Your task to perform on an android device: Go to Reddit.com Image 0: 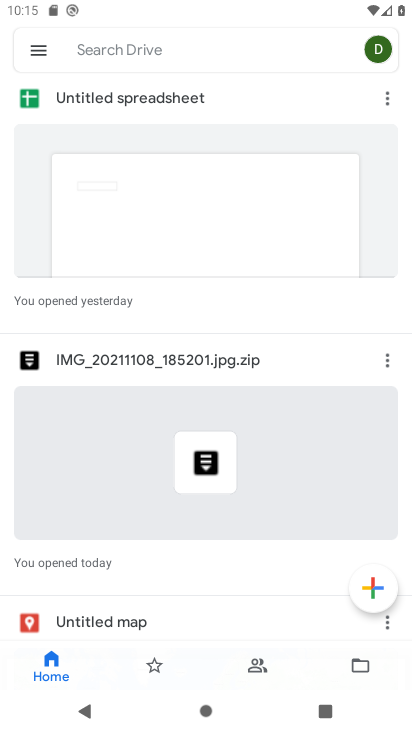
Step 0: press home button
Your task to perform on an android device: Go to Reddit.com Image 1: 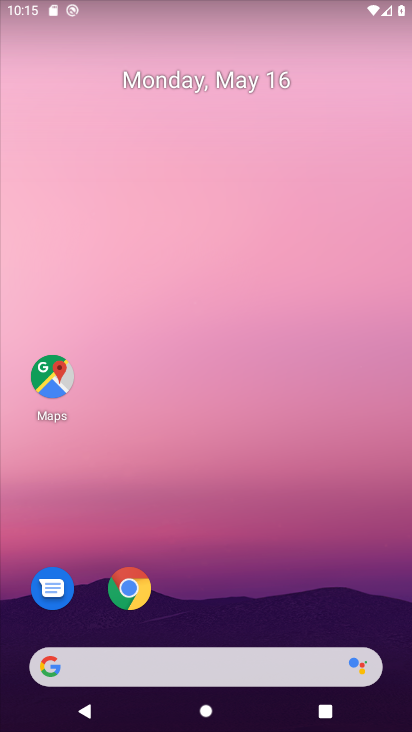
Step 1: click (128, 580)
Your task to perform on an android device: Go to Reddit.com Image 2: 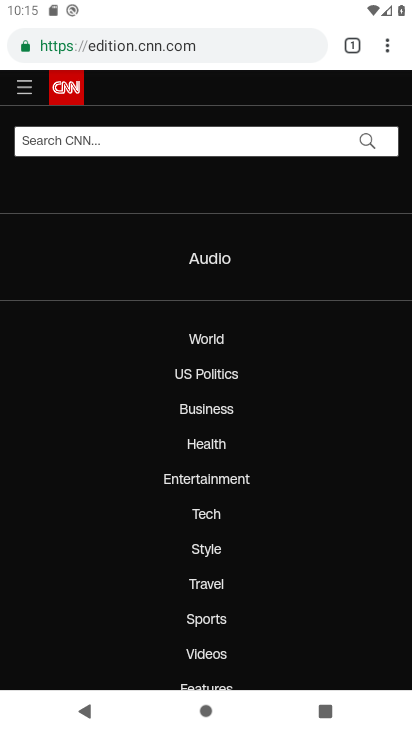
Step 2: click (383, 43)
Your task to perform on an android device: Go to Reddit.com Image 3: 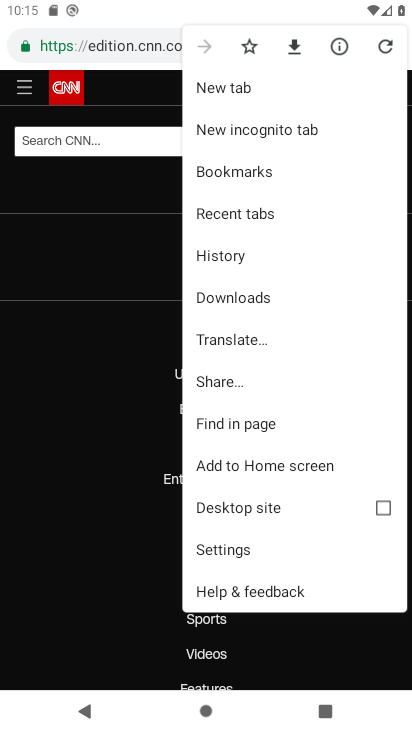
Step 3: click (62, 425)
Your task to perform on an android device: Go to Reddit.com Image 4: 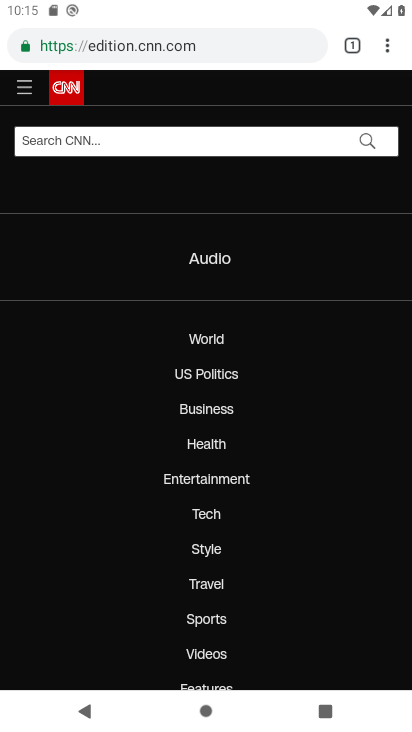
Step 4: click (357, 39)
Your task to perform on an android device: Go to Reddit.com Image 5: 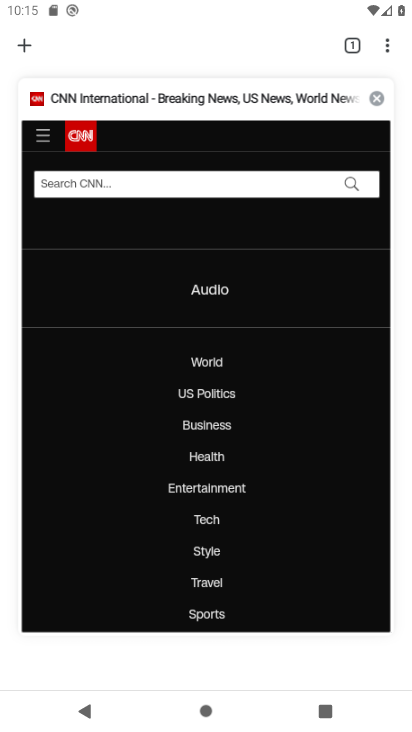
Step 5: click (374, 91)
Your task to perform on an android device: Go to Reddit.com Image 6: 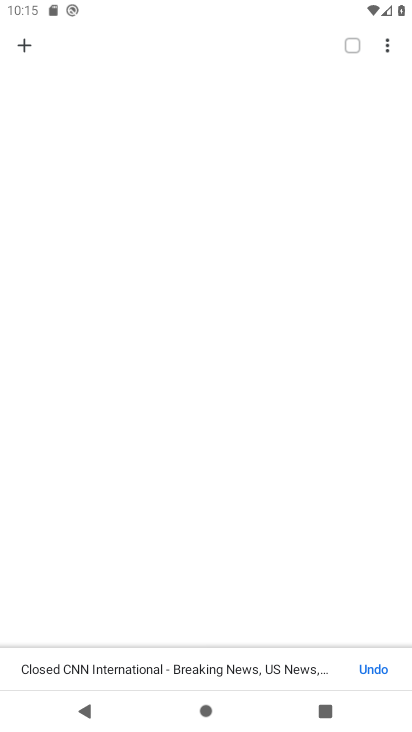
Step 6: click (28, 51)
Your task to perform on an android device: Go to Reddit.com Image 7: 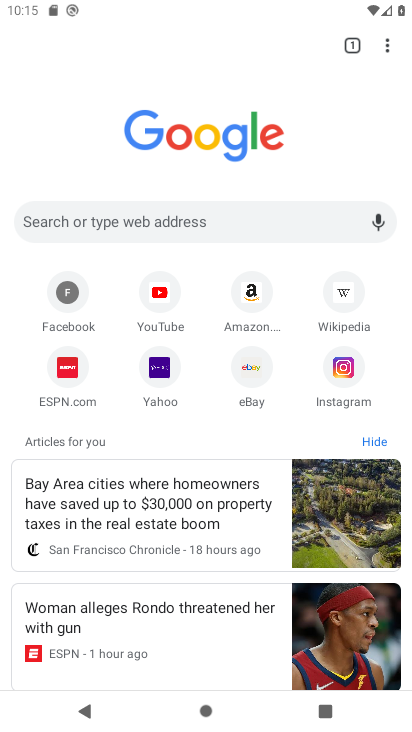
Step 7: click (173, 209)
Your task to perform on an android device: Go to Reddit.com Image 8: 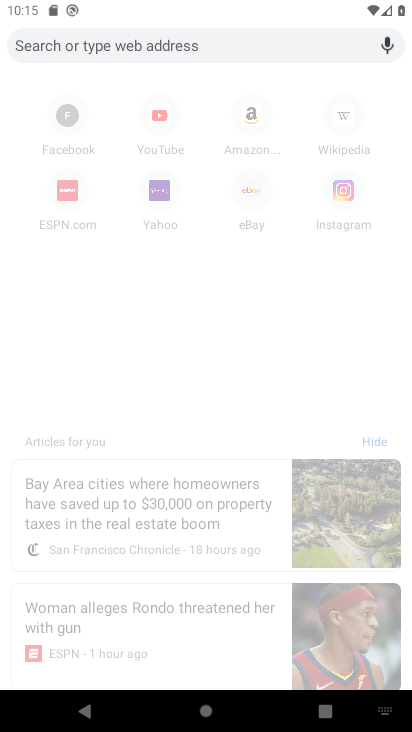
Step 8: type "reddit"
Your task to perform on an android device: Go to Reddit.com Image 9: 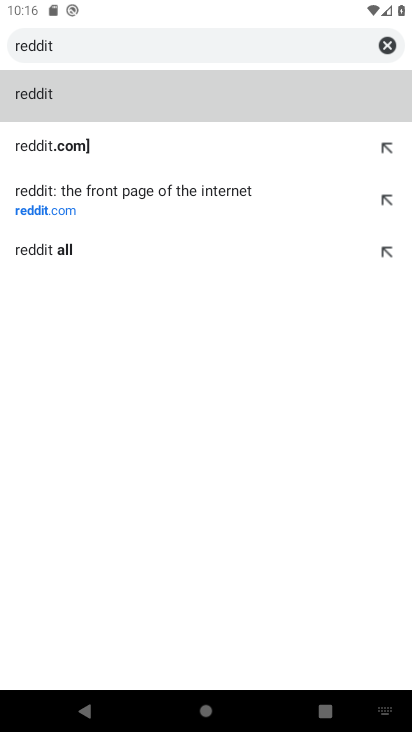
Step 9: click (81, 202)
Your task to perform on an android device: Go to Reddit.com Image 10: 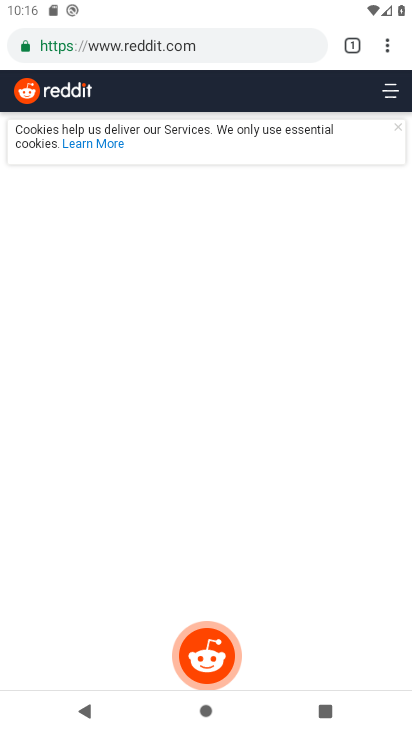
Step 10: task complete